Your task to perform on an android device: open wifi settings Image 0: 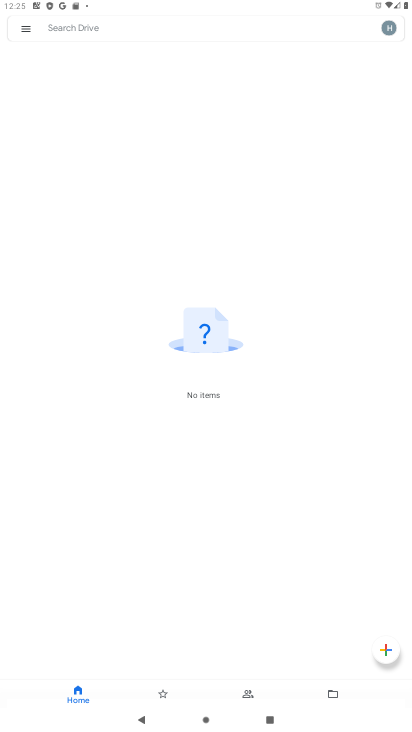
Step 0: press home button
Your task to perform on an android device: open wifi settings Image 1: 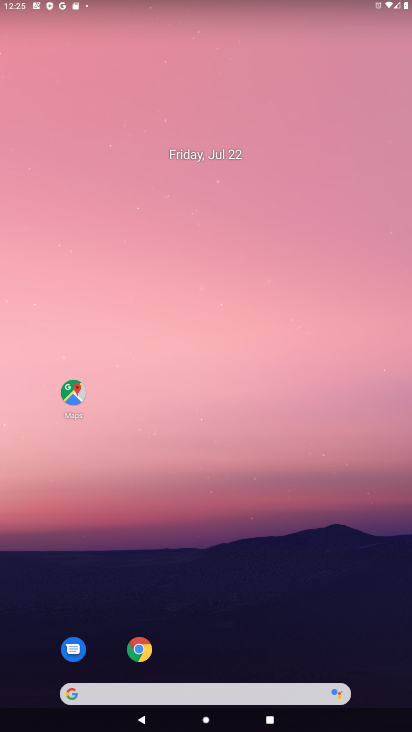
Step 1: drag from (250, 597) to (230, 77)
Your task to perform on an android device: open wifi settings Image 2: 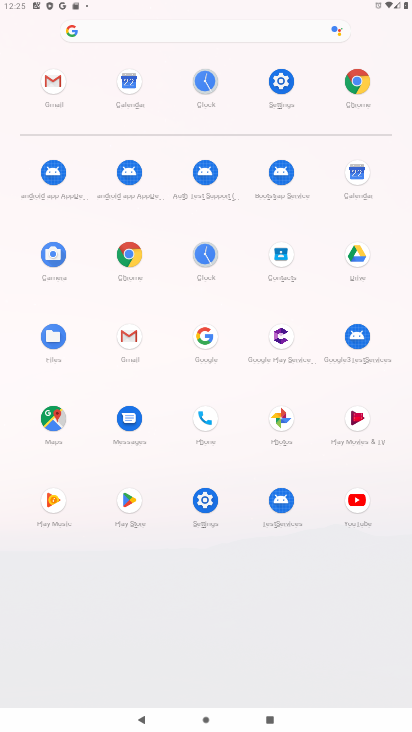
Step 2: click (276, 79)
Your task to perform on an android device: open wifi settings Image 3: 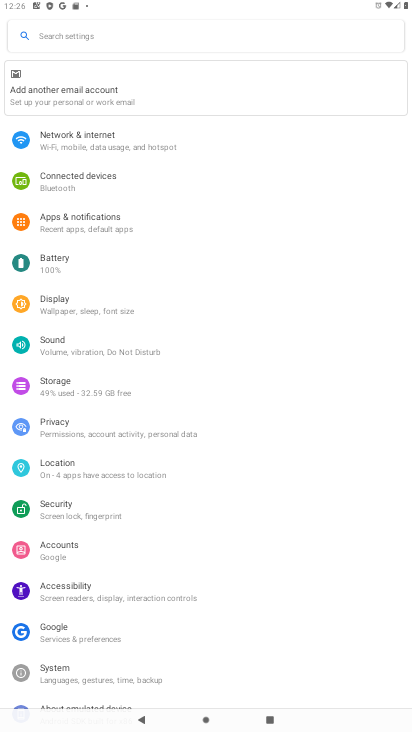
Step 3: click (129, 137)
Your task to perform on an android device: open wifi settings Image 4: 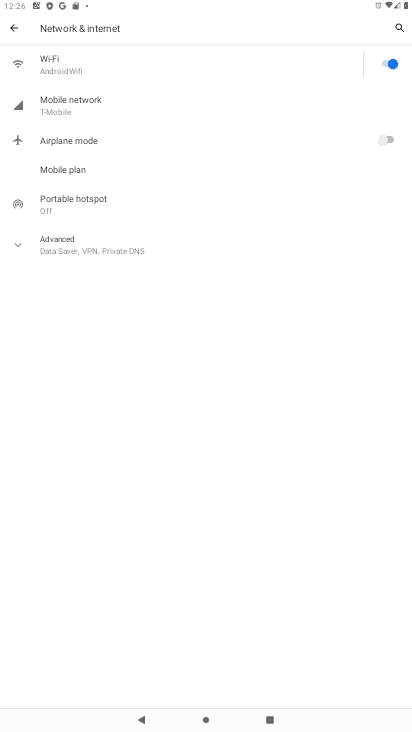
Step 4: click (116, 55)
Your task to perform on an android device: open wifi settings Image 5: 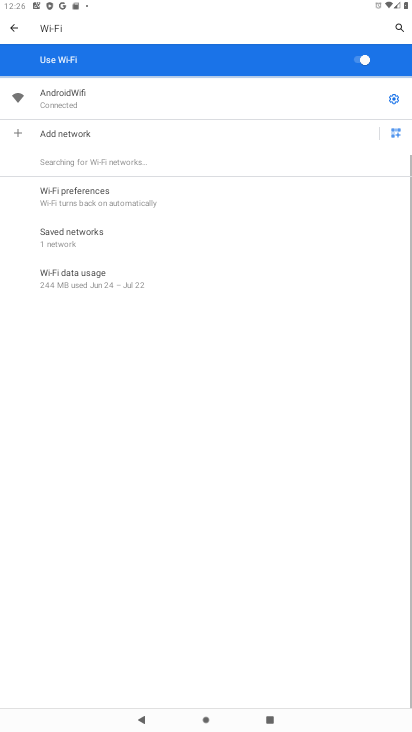
Step 5: click (391, 97)
Your task to perform on an android device: open wifi settings Image 6: 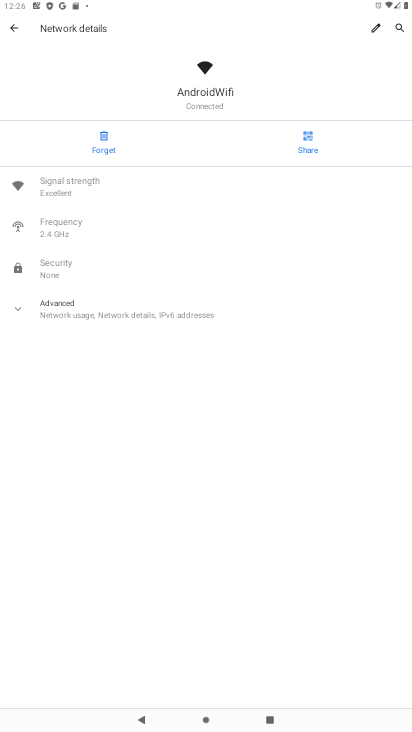
Step 6: task complete